Your task to perform on an android device: Open Chrome and go to settings Image 0: 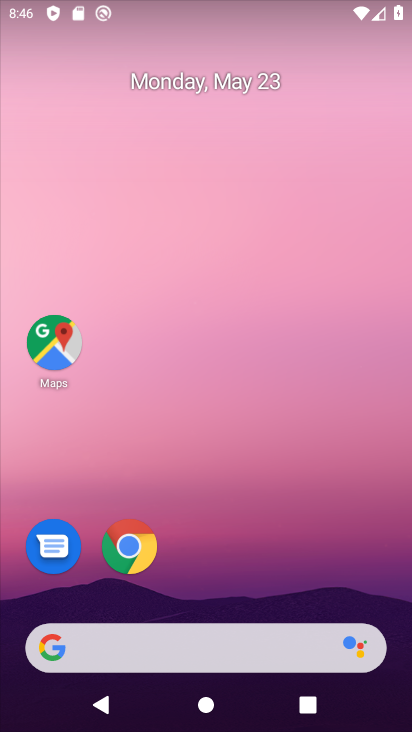
Step 0: drag from (344, 524) to (239, 118)
Your task to perform on an android device: Open Chrome and go to settings Image 1: 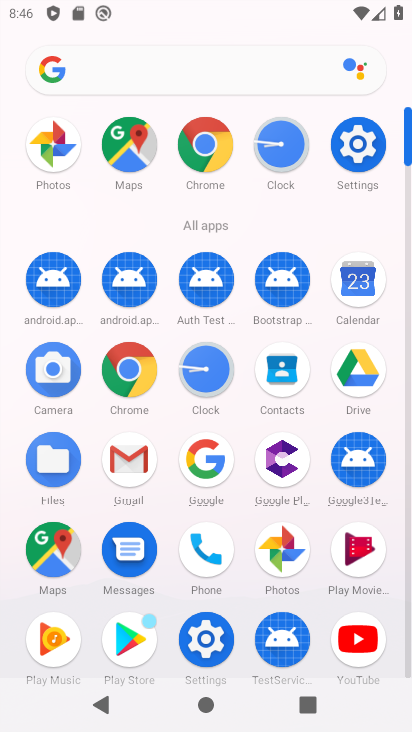
Step 1: click (199, 137)
Your task to perform on an android device: Open Chrome and go to settings Image 2: 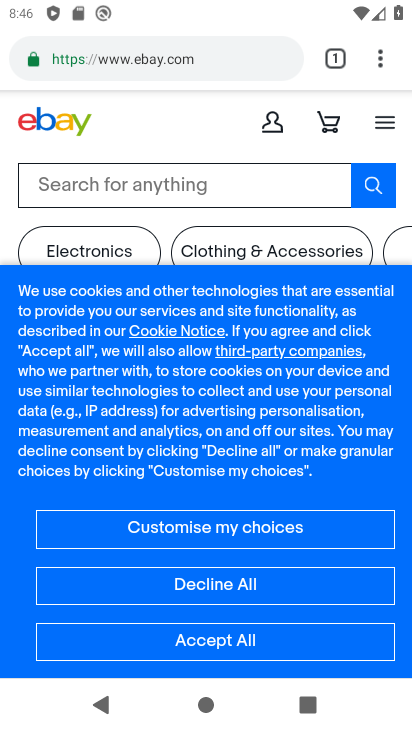
Step 2: click (392, 53)
Your task to perform on an android device: Open Chrome and go to settings Image 3: 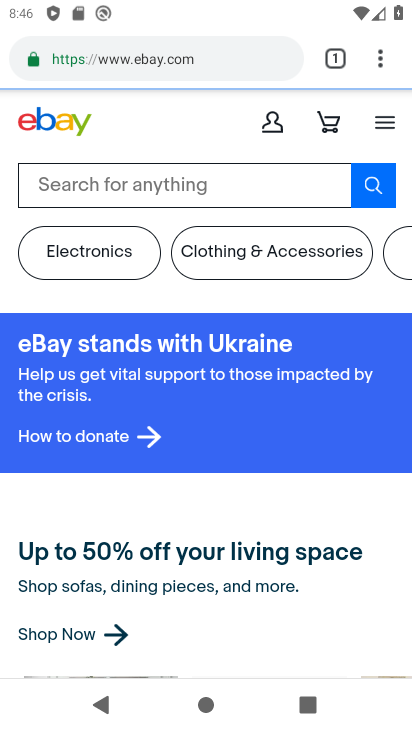
Step 3: task complete